Your task to perform on an android device: change timer sound Image 0: 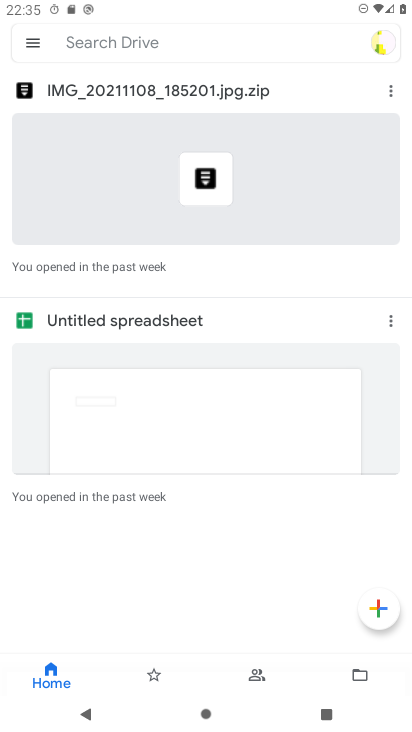
Step 0: press home button
Your task to perform on an android device: change timer sound Image 1: 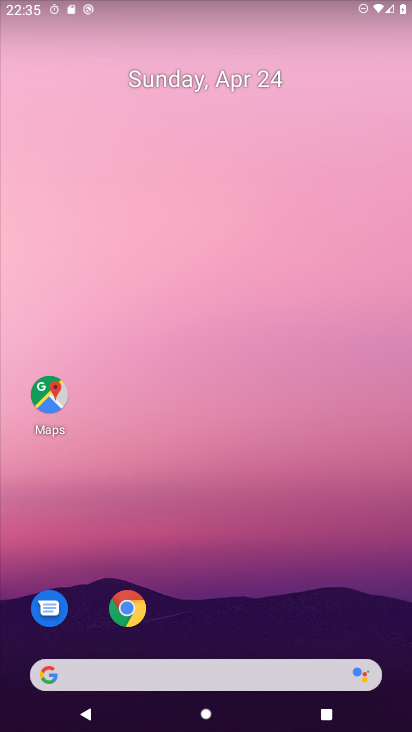
Step 1: drag from (254, 613) to (304, 68)
Your task to perform on an android device: change timer sound Image 2: 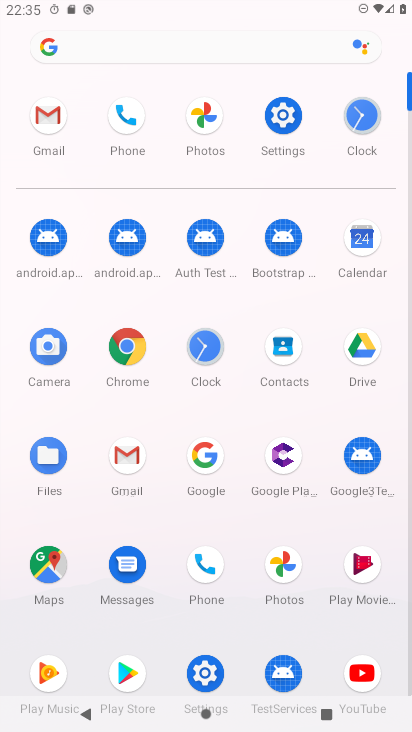
Step 2: click (365, 117)
Your task to perform on an android device: change timer sound Image 3: 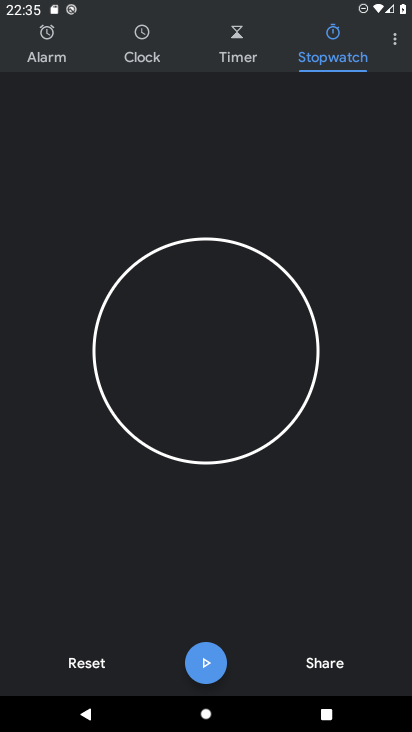
Step 3: click (393, 41)
Your task to perform on an android device: change timer sound Image 4: 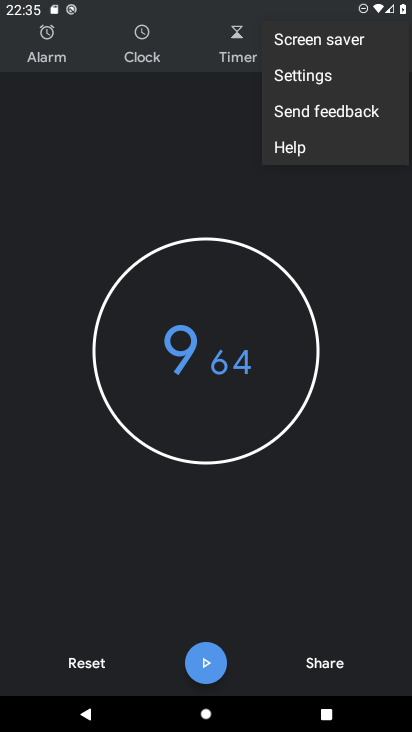
Step 4: click (348, 78)
Your task to perform on an android device: change timer sound Image 5: 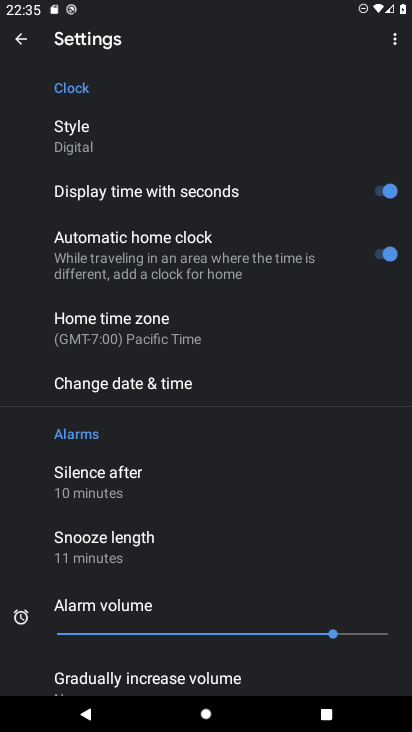
Step 5: drag from (197, 512) to (208, 194)
Your task to perform on an android device: change timer sound Image 6: 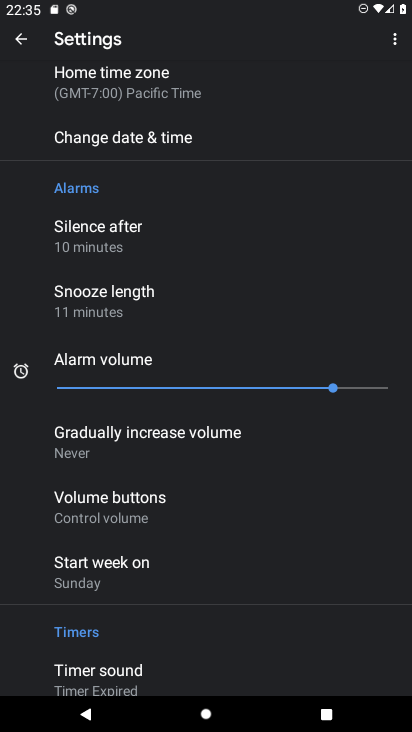
Step 6: drag from (240, 550) to (266, 264)
Your task to perform on an android device: change timer sound Image 7: 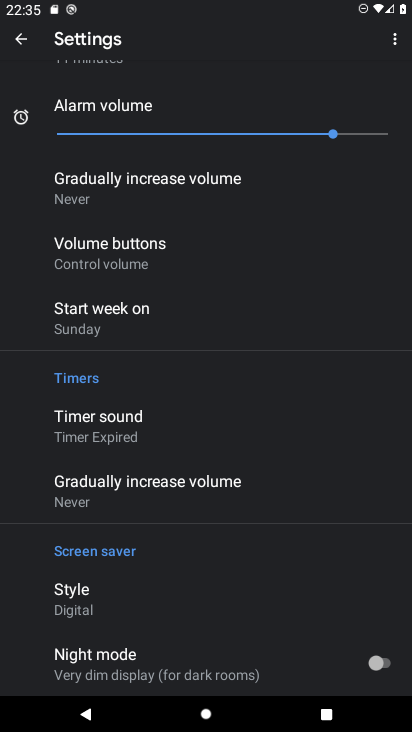
Step 7: click (159, 420)
Your task to perform on an android device: change timer sound Image 8: 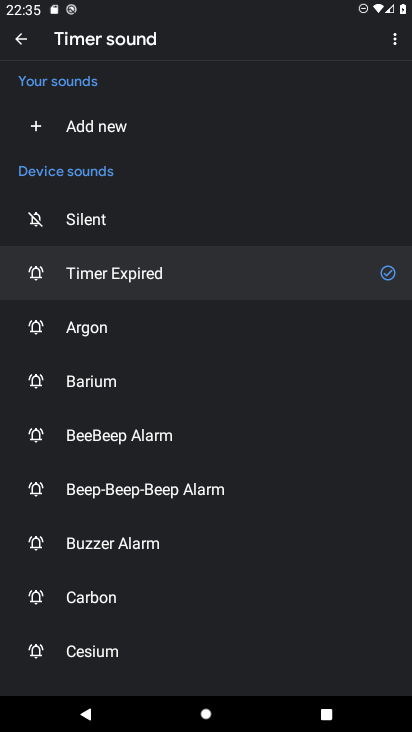
Step 8: click (97, 329)
Your task to perform on an android device: change timer sound Image 9: 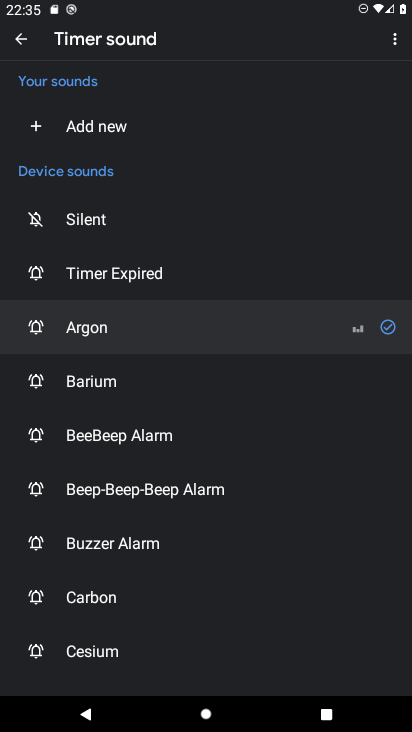
Step 9: task complete